Your task to perform on an android device: change the clock display to analog Image 0: 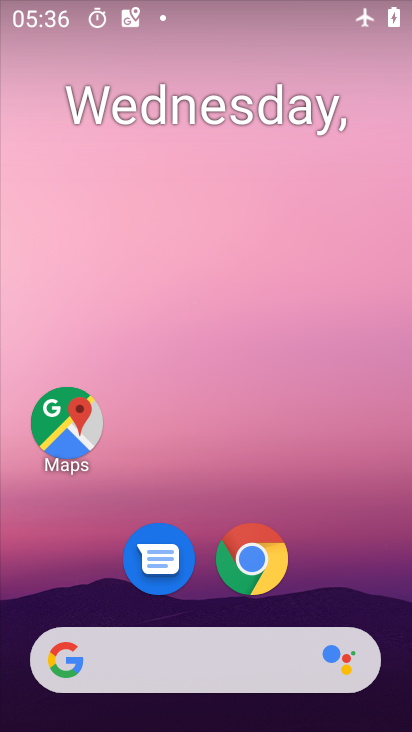
Step 0: drag from (341, 580) to (216, 52)
Your task to perform on an android device: change the clock display to analog Image 1: 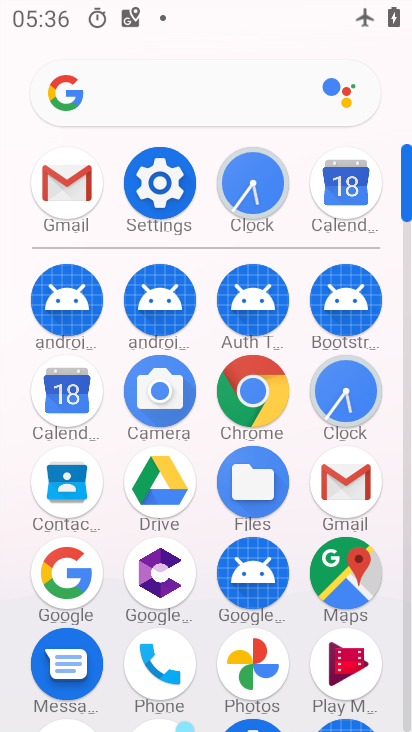
Step 1: click (262, 197)
Your task to perform on an android device: change the clock display to analog Image 2: 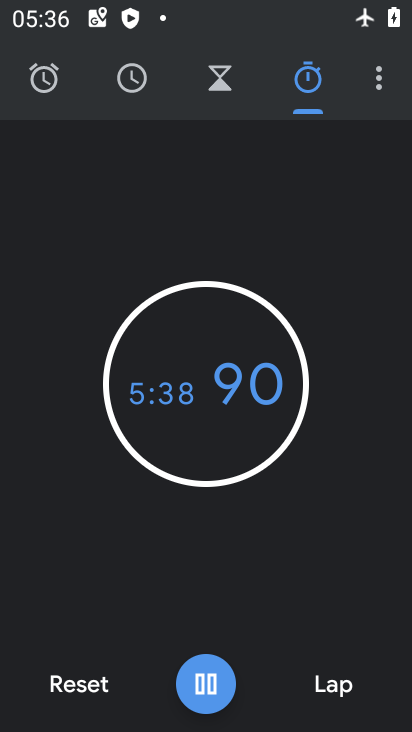
Step 2: click (377, 88)
Your task to perform on an android device: change the clock display to analog Image 3: 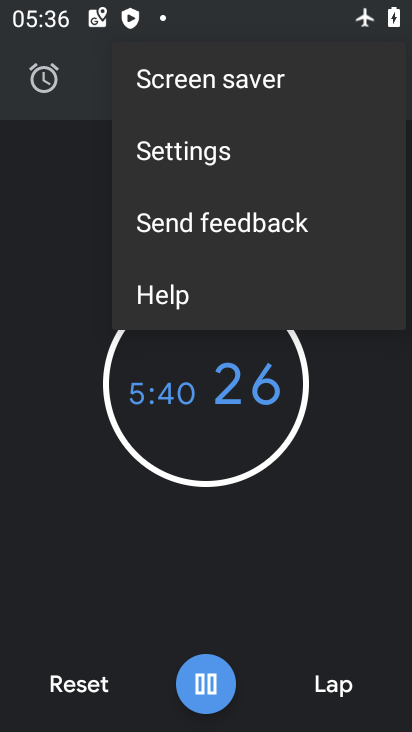
Step 3: click (255, 166)
Your task to perform on an android device: change the clock display to analog Image 4: 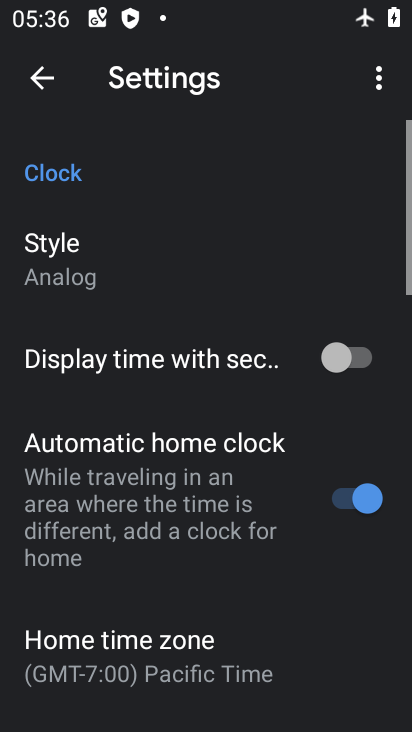
Step 4: click (95, 254)
Your task to perform on an android device: change the clock display to analog Image 5: 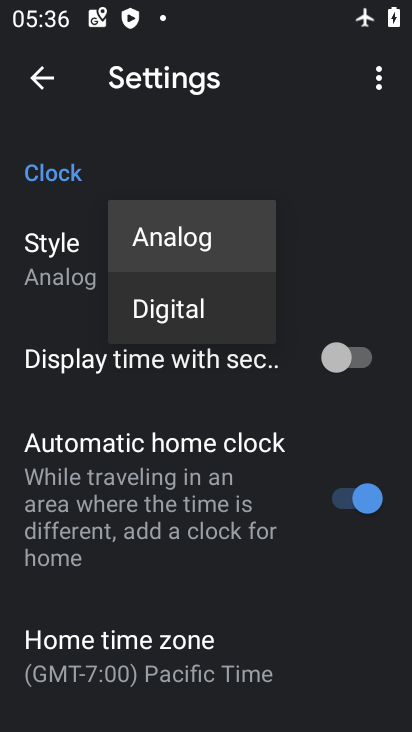
Step 5: task complete